Your task to perform on an android device: check android version Image 0: 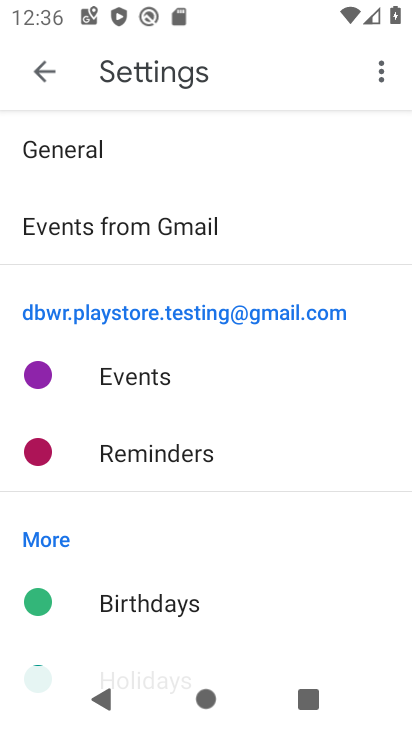
Step 0: press home button
Your task to perform on an android device: check android version Image 1: 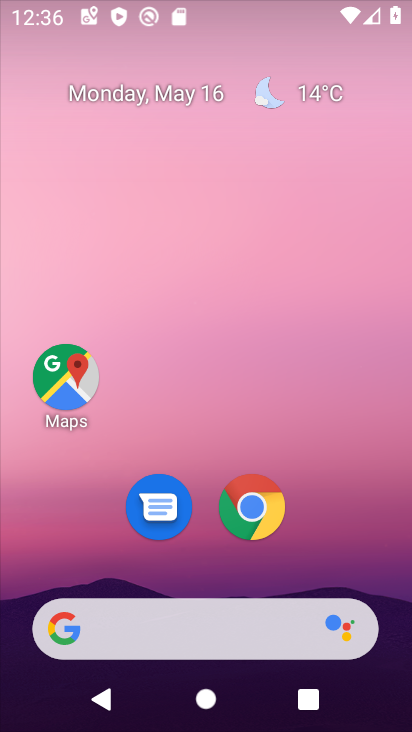
Step 1: drag from (245, 565) to (265, 253)
Your task to perform on an android device: check android version Image 2: 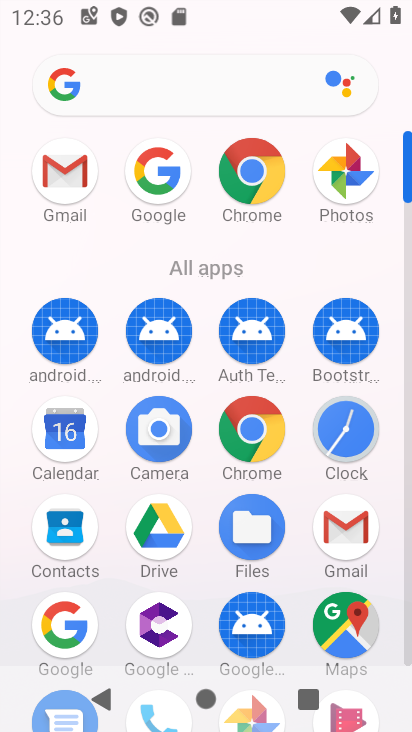
Step 2: drag from (201, 292) to (223, 33)
Your task to perform on an android device: check android version Image 3: 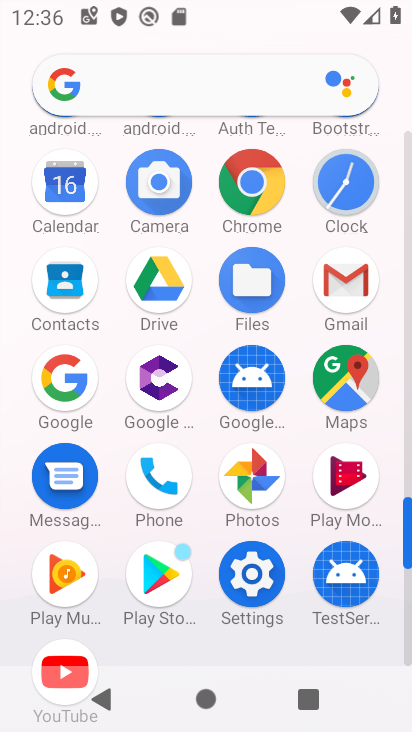
Step 3: click (243, 573)
Your task to perform on an android device: check android version Image 4: 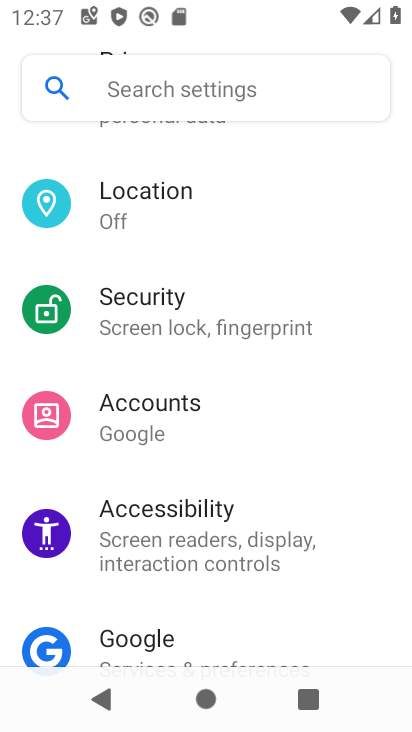
Step 4: drag from (218, 513) to (200, 59)
Your task to perform on an android device: check android version Image 5: 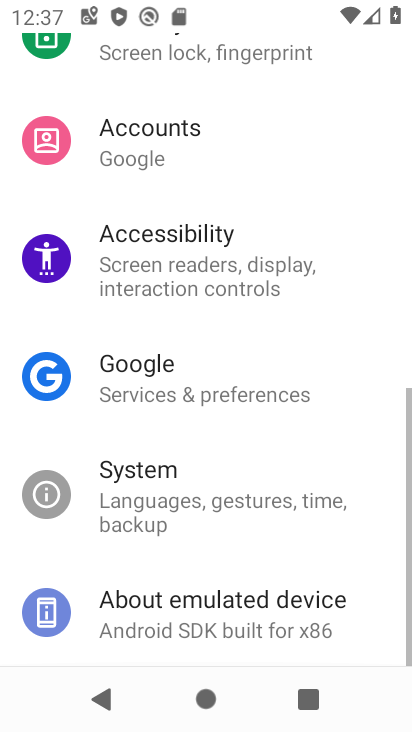
Step 5: drag from (190, 482) to (207, 66)
Your task to perform on an android device: check android version Image 6: 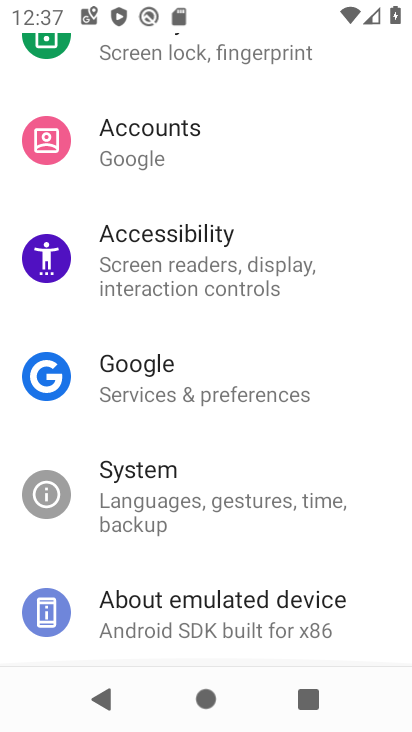
Step 6: drag from (204, 562) to (211, 338)
Your task to perform on an android device: check android version Image 7: 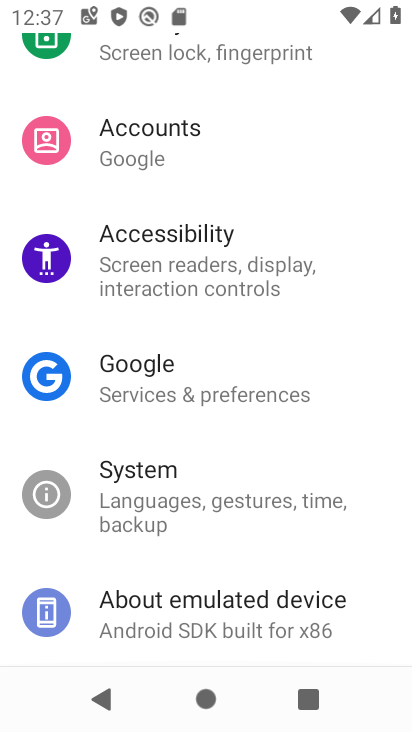
Step 7: click (232, 628)
Your task to perform on an android device: check android version Image 8: 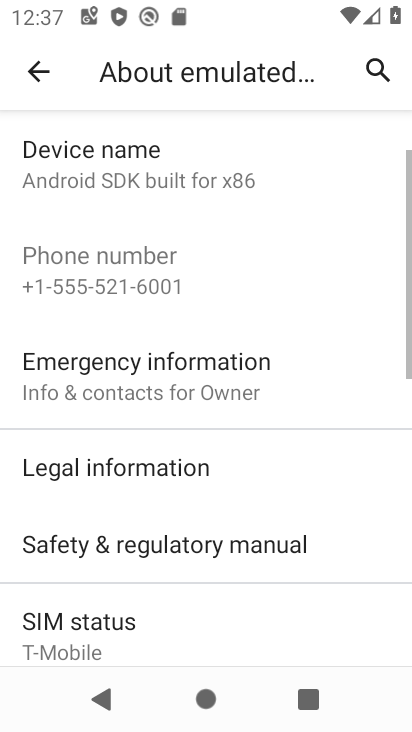
Step 8: drag from (153, 476) to (224, 120)
Your task to perform on an android device: check android version Image 9: 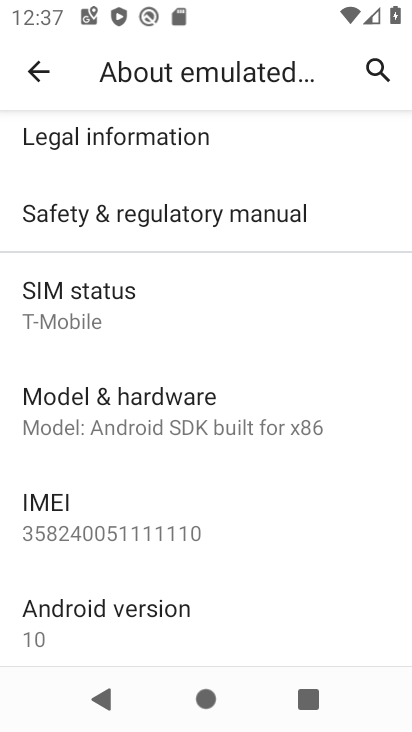
Step 9: drag from (227, 563) to (218, 356)
Your task to perform on an android device: check android version Image 10: 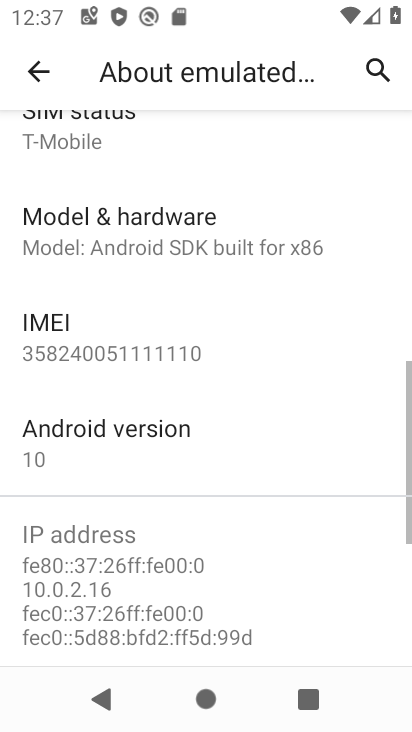
Step 10: click (176, 445)
Your task to perform on an android device: check android version Image 11: 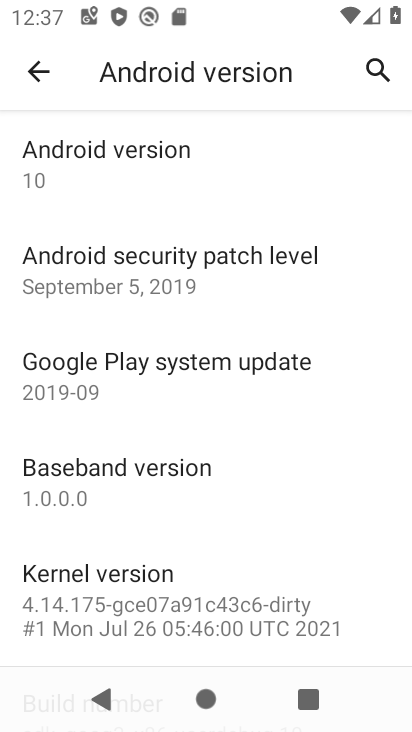
Step 11: task complete